Your task to perform on an android device: uninstall "Adobe Express: Graphic Design" Image 0: 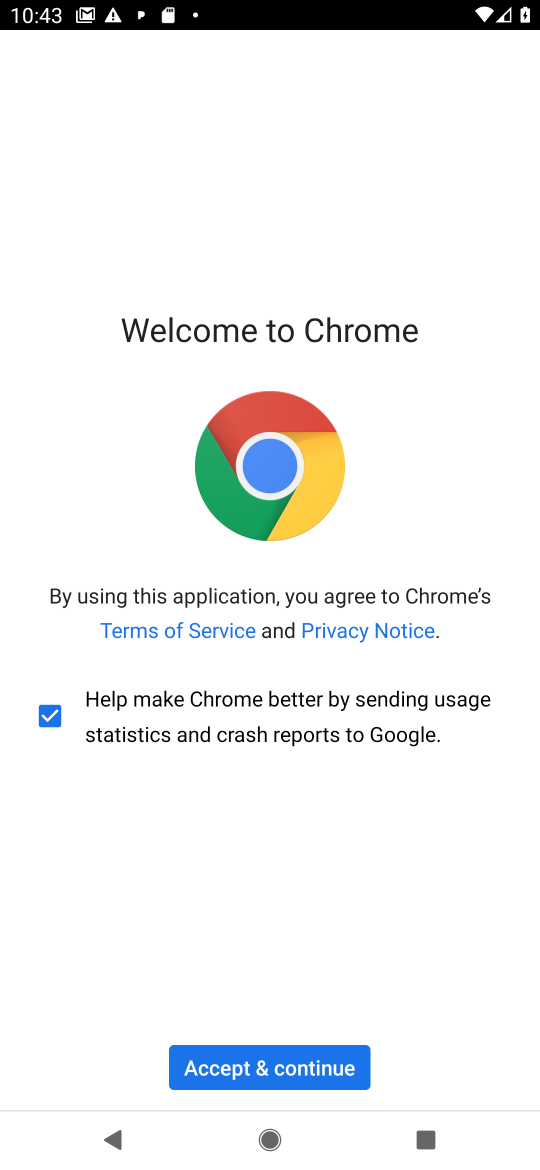
Step 0: press back button
Your task to perform on an android device: uninstall "Adobe Express: Graphic Design" Image 1: 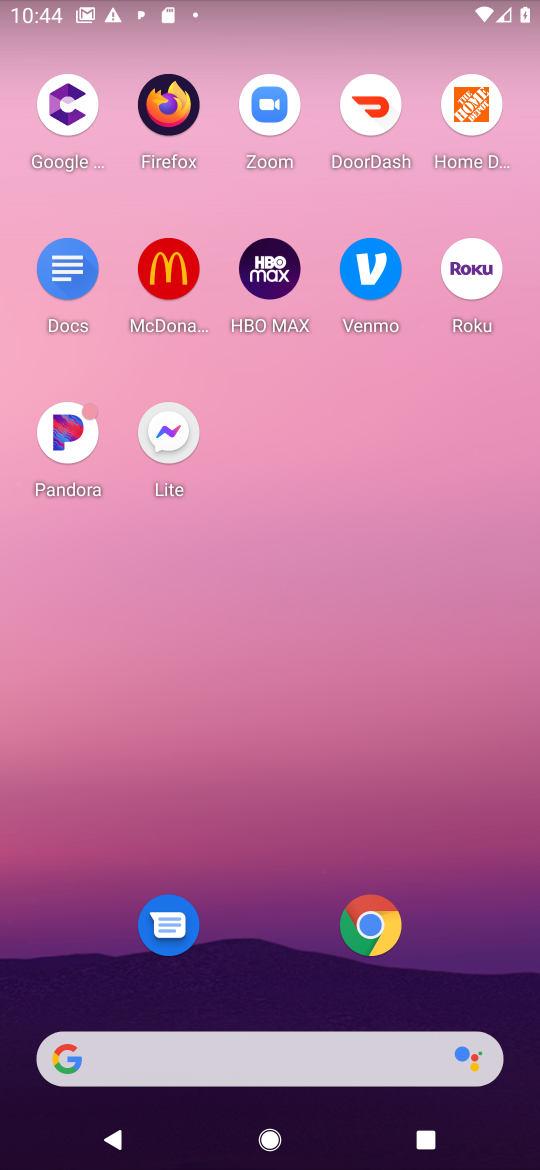
Step 1: drag from (264, 966) to (422, 219)
Your task to perform on an android device: uninstall "Adobe Express: Graphic Design" Image 2: 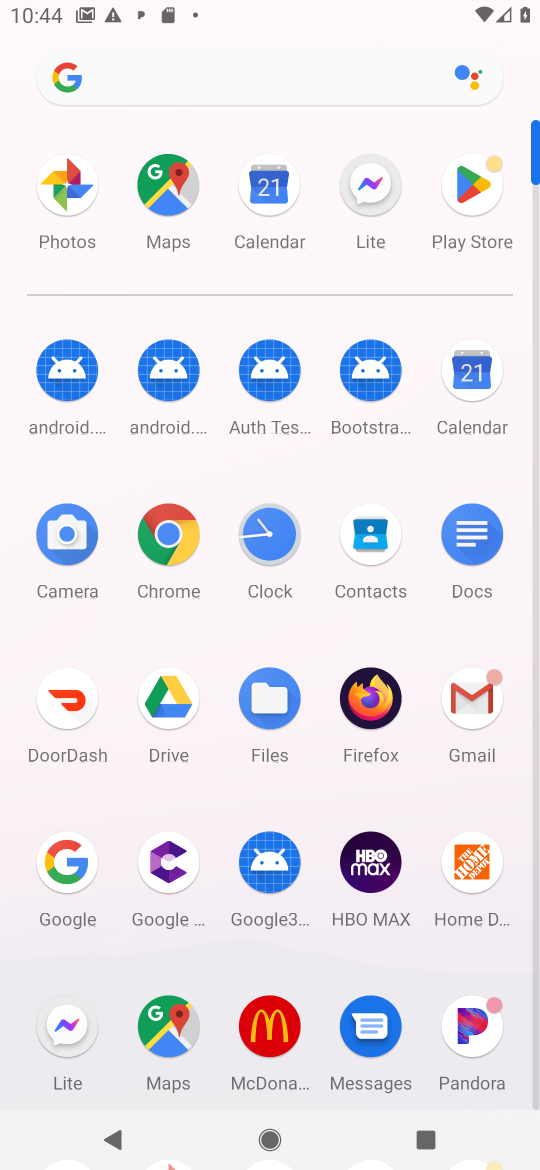
Step 2: click (476, 183)
Your task to perform on an android device: uninstall "Adobe Express: Graphic Design" Image 3: 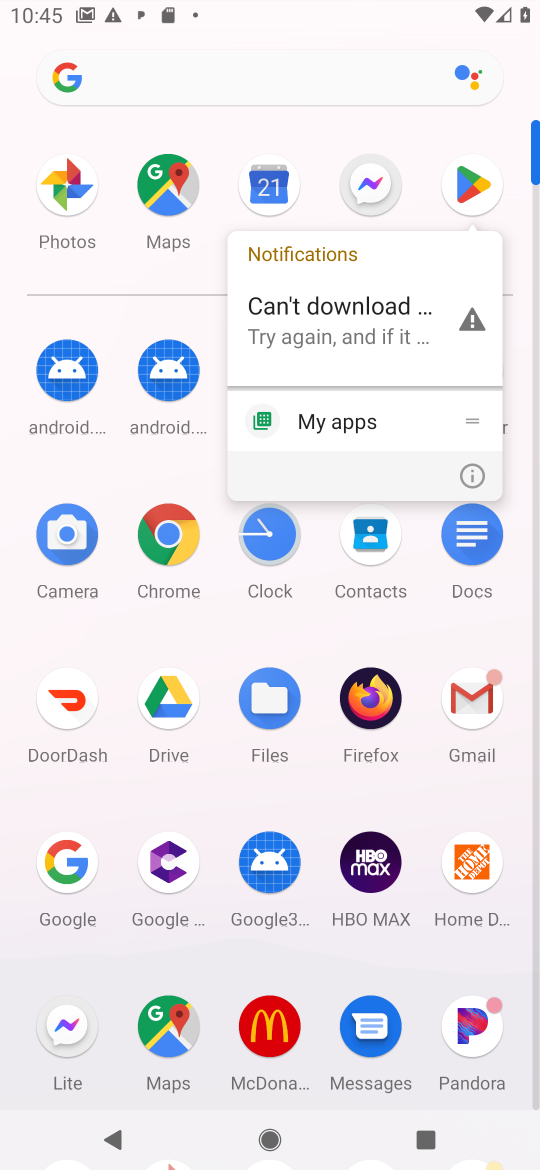
Step 3: click (458, 178)
Your task to perform on an android device: uninstall "Adobe Express: Graphic Design" Image 4: 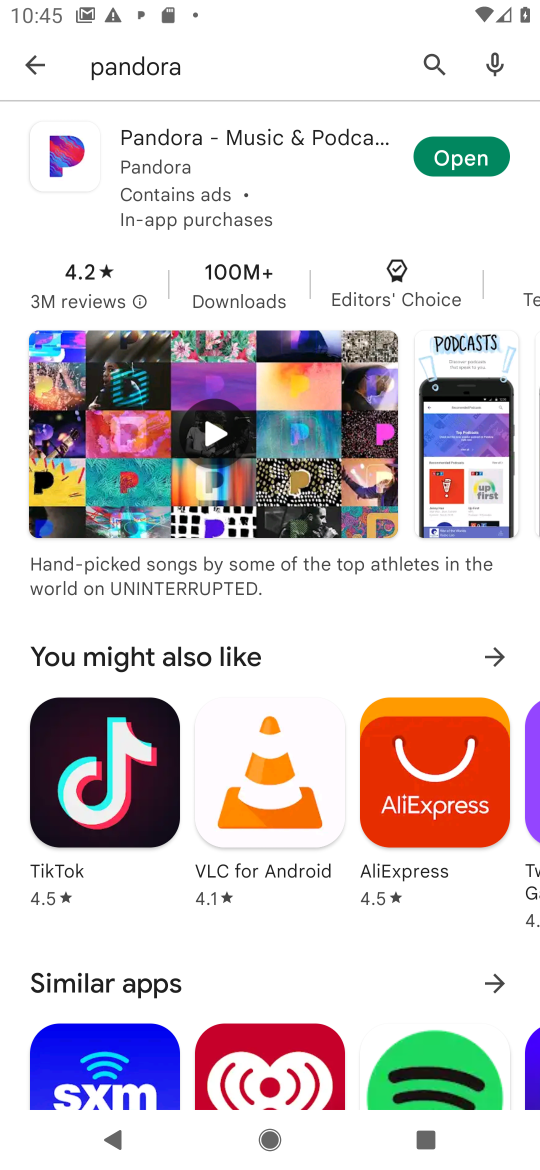
Step 4: click (434, 52)
Your task to perform on an android device: uninstall "Adobe Express: Graphic Design" Image 5: 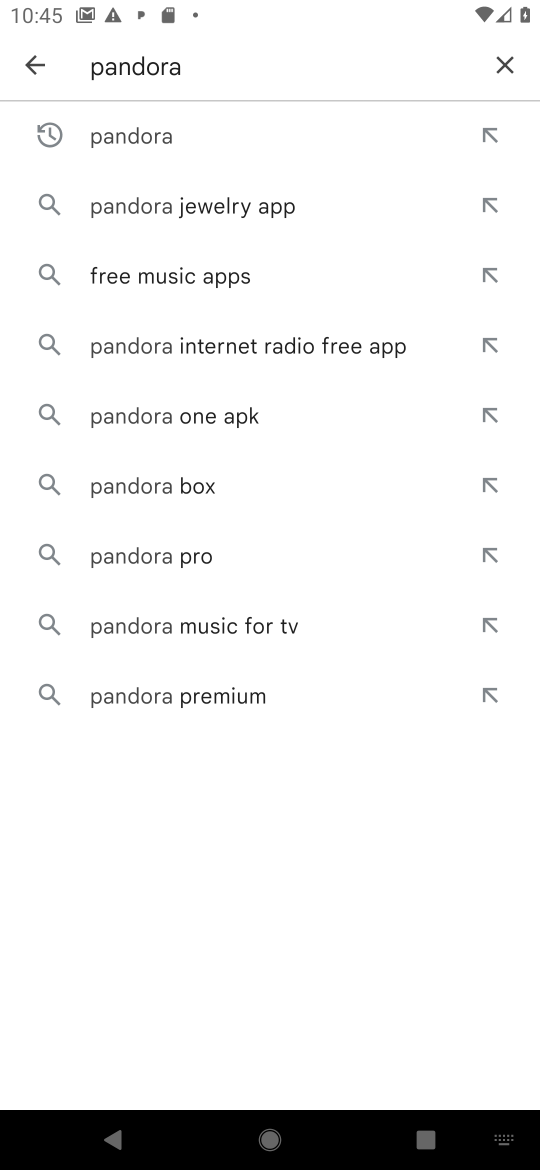
Step 5: click (503, 62)
Your task to perform on an android device: uninstall "Adobe Express: Graphic Design" Image 6: 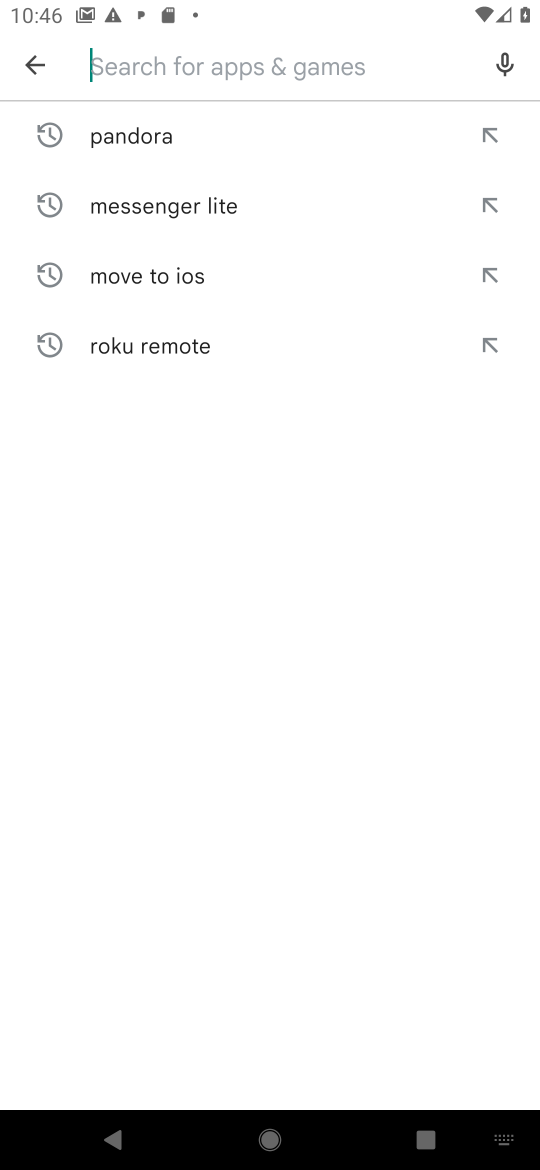
Step 6: click (131, 72)
Your task to perform on an android device: uninstall "Adobe Express: Graphic Design" Image 7: 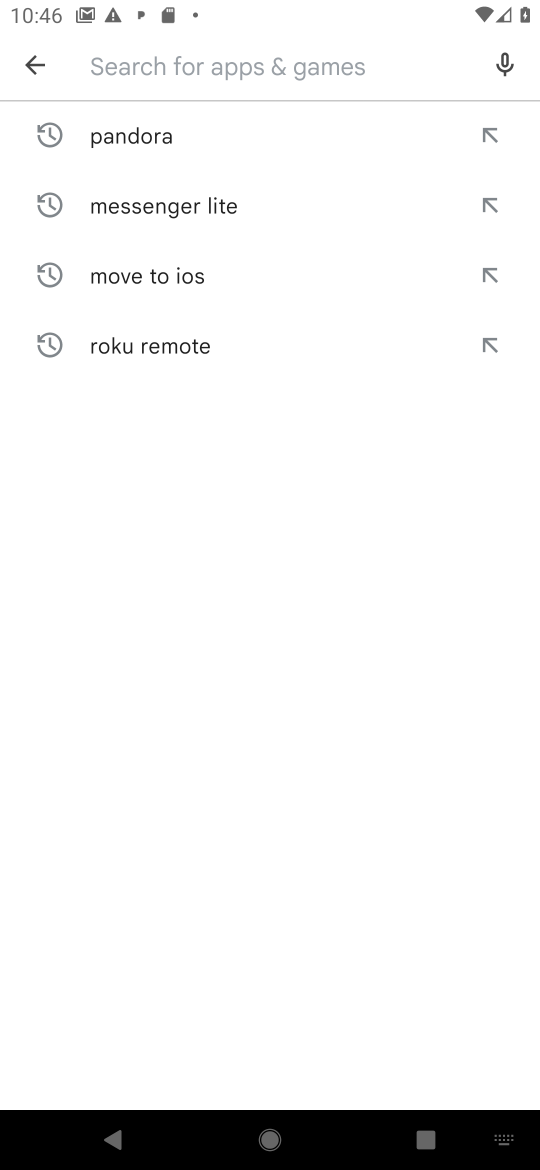
Step 7: type "Adobe Express: Graphic Design"
Your task to perform on an android device: uninstall "Adobe Express: Graphic Design" Image 8: 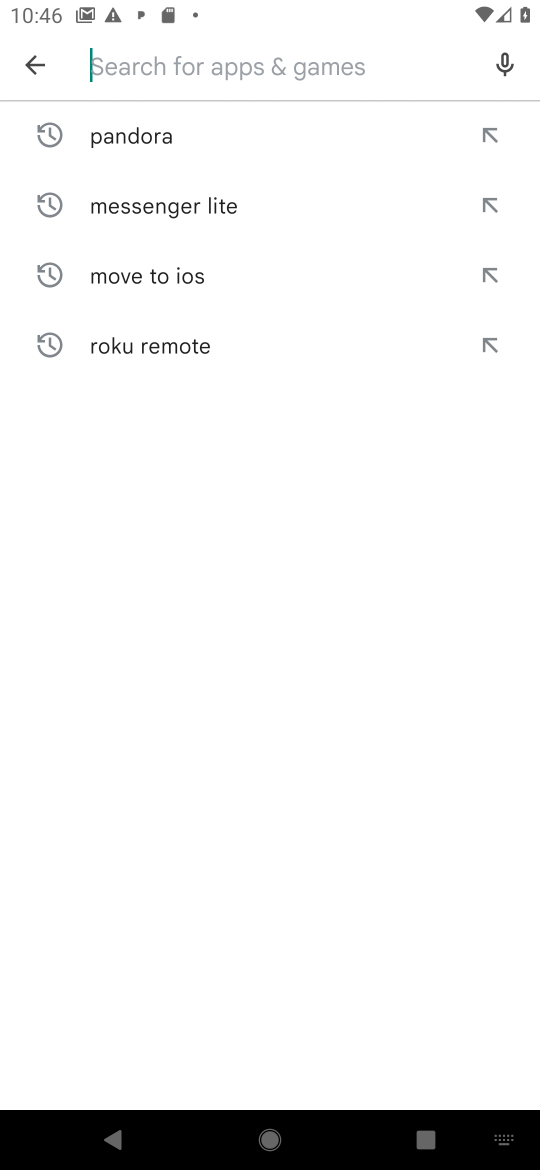
Step 8: click (431, 687)
Your task to perform on an android device: uninstall "Adobe Express: Graphic Design" Image 9: 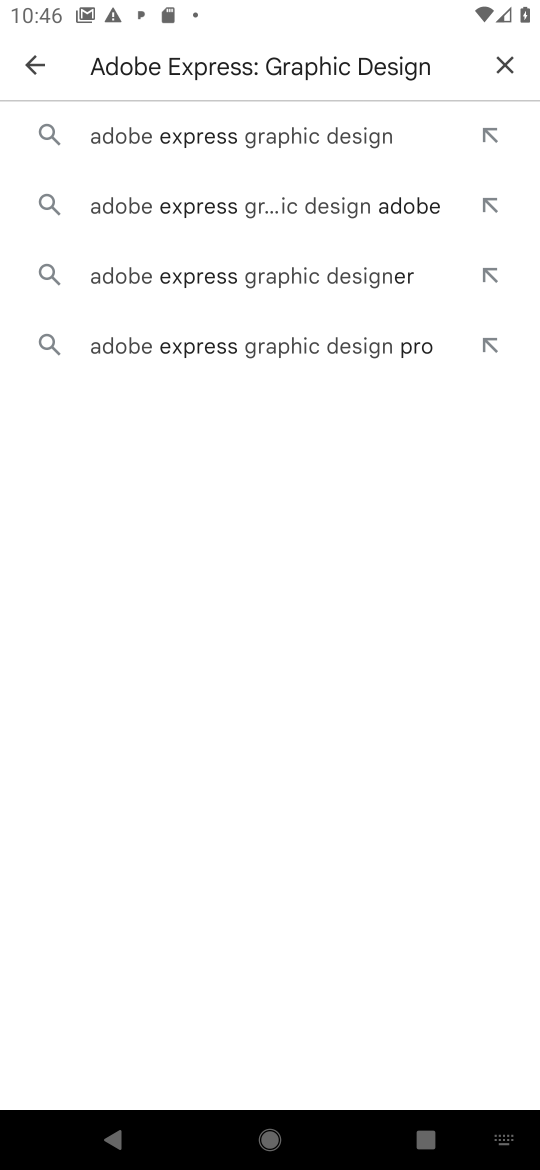
Step 9: click (222, 122)
Your task to perform on an android device: uninstall "Adobe Express: Graphic Design" Image 10: 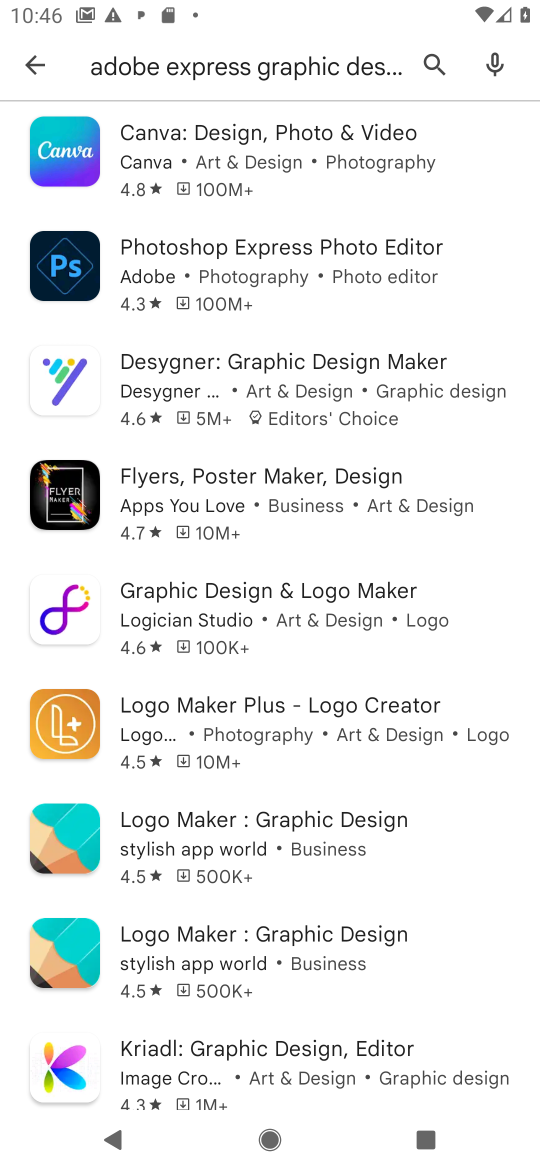
Step 10: task complete